Your task to perform on an android device: Open CNN.com Image 0: 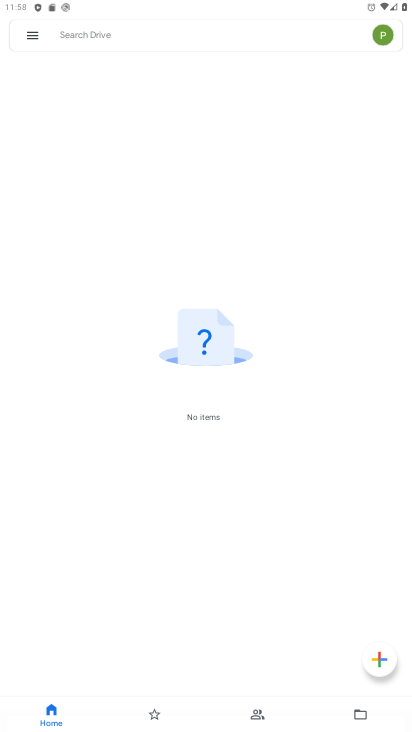
Step 0: press home button
Your task to perform on an android device: Open CNN.com Image 1: 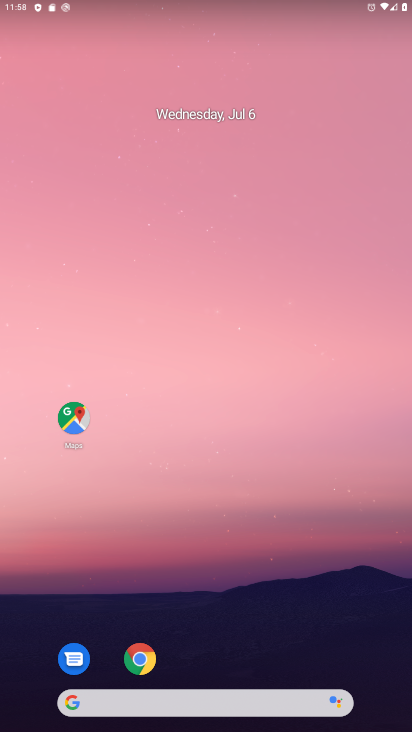
Step 1: click (173, 706)
Your task to perform on an android device: Open CNN.com Image 2: 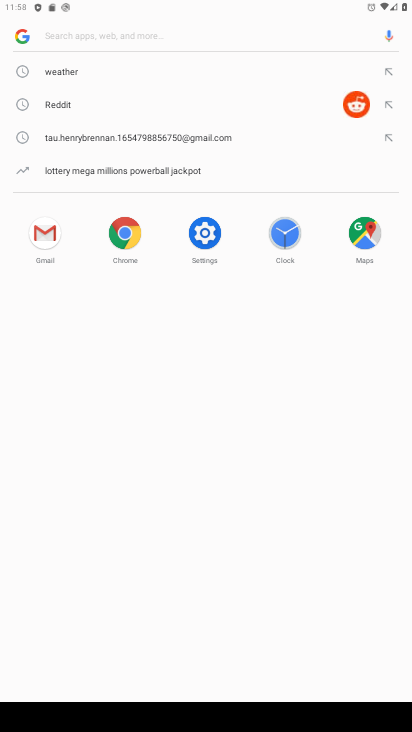
Step 2: type "cnn"
Your task to perform on an android device: Open CNN.com Image 3: 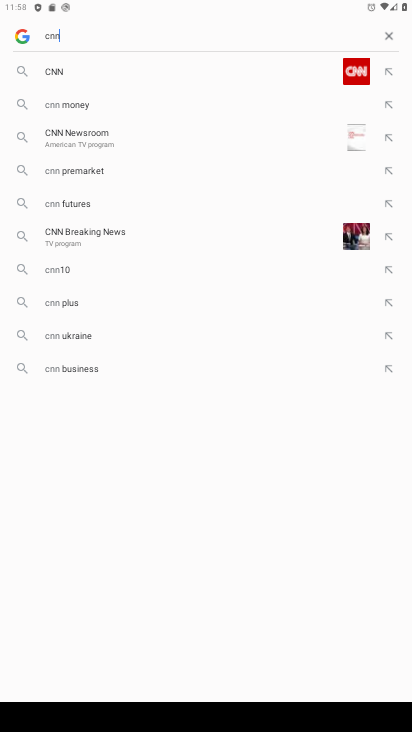
Step 3: click (92, 74)
Your task to perform on an android device: Open CNN.com Image 4: 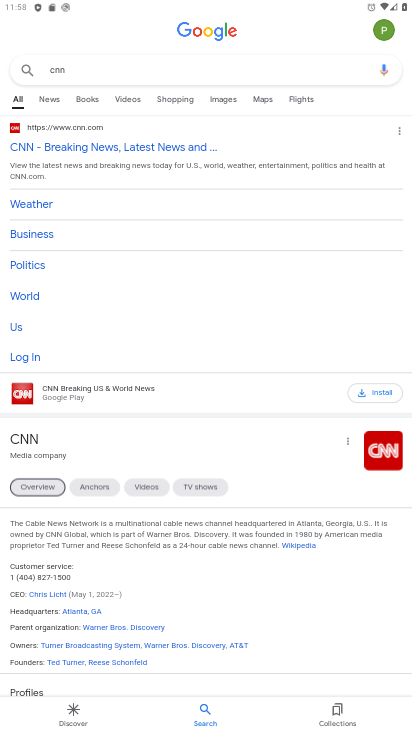
Step 4: task complete